Your task to perform on an android device: change the upload size in google photos Image 0: 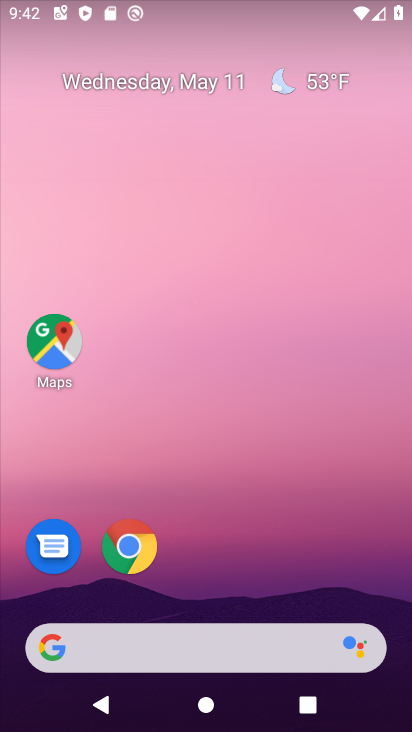
Step 0: drag from (382, 608) to (249, 49)
Your task to perform on an android device: change the upload size in google photos Image 1: 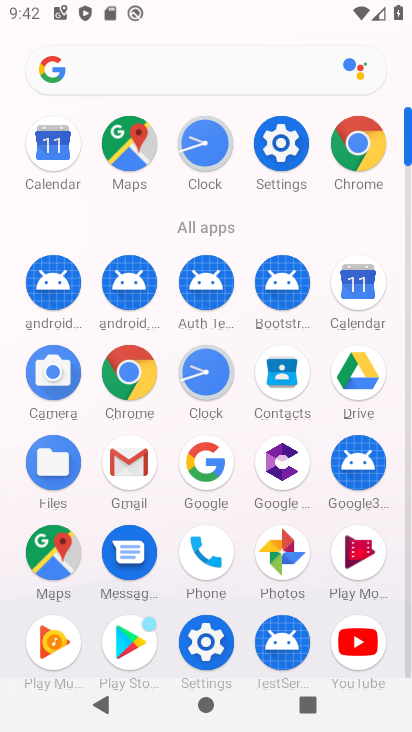
Step 1: click (285, 555)
Your task to perform on an android device: change the upload size in google photos Image 2: 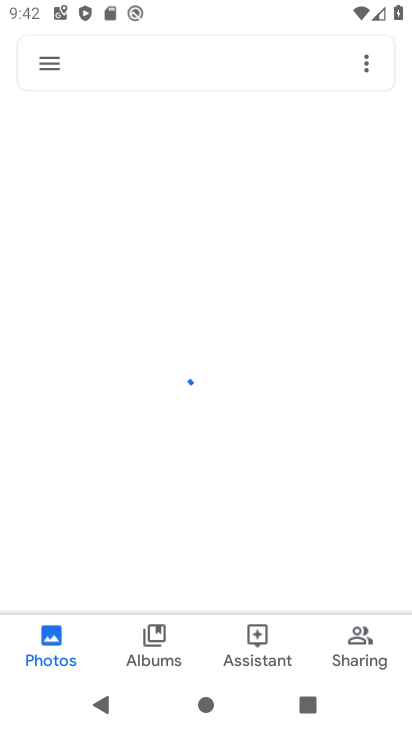
Step 2: click (47, 68)
Your task to perform on an android device: change the upload size in google photos Image 3: 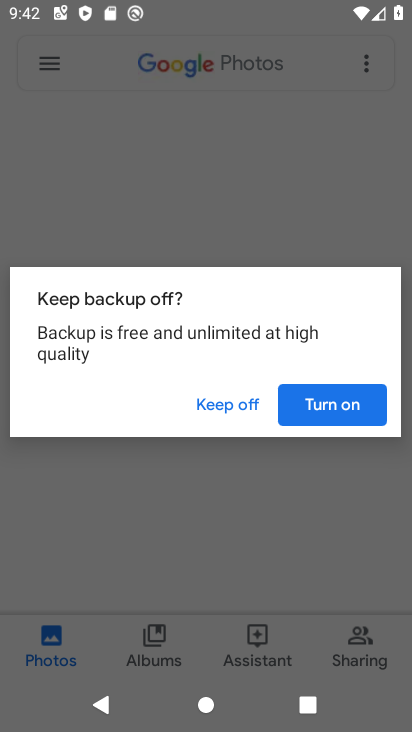
Step 3: click (328, 406)
Your task to perform on an android device: change the upload size in google photos Image 4: 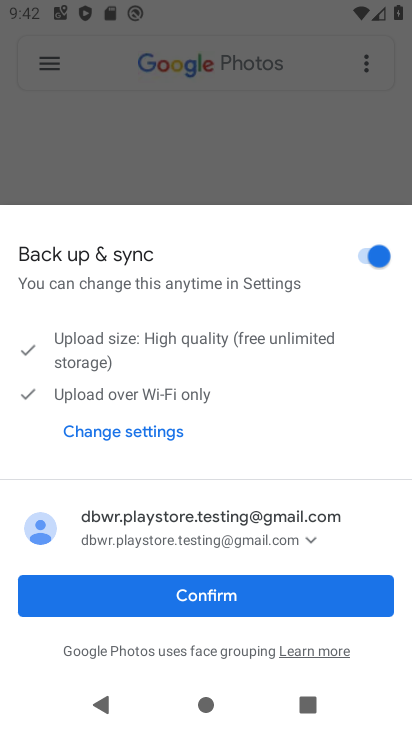
Step 4: click (200, 578)
Your task to perform on an android device: change the upload size in google photos Image 5: 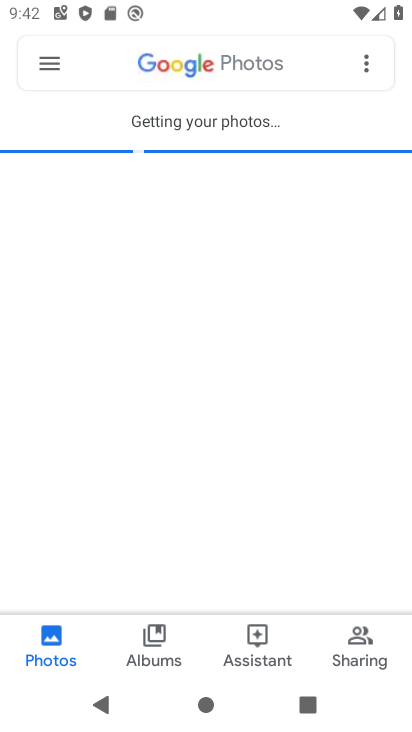
Step 5: click (49, 63)
Your task to perform on an android device: change the upload size in google photos Image 6: 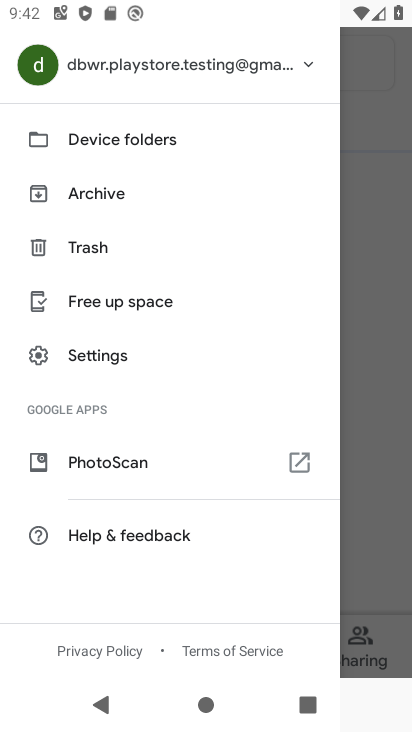
Step 6: click (119, 358)
Your task to perform on an android device: change the upload size in google photos Image 7: 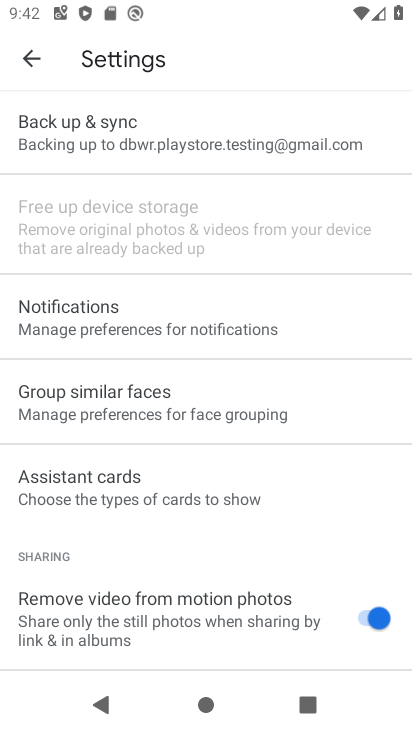
Step 7: click (176, 137)
Your task to perform on an android device: change the upload size in google photos Image 8: 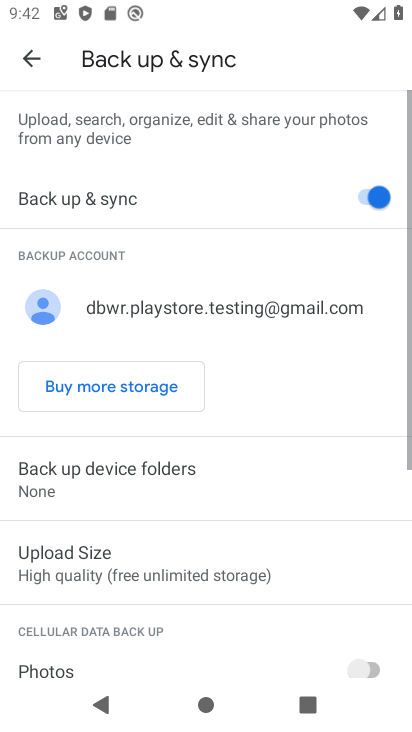
Step 8: click (169, 575)
Your task to perform on an android device: change the upload size in google photos Image 9: 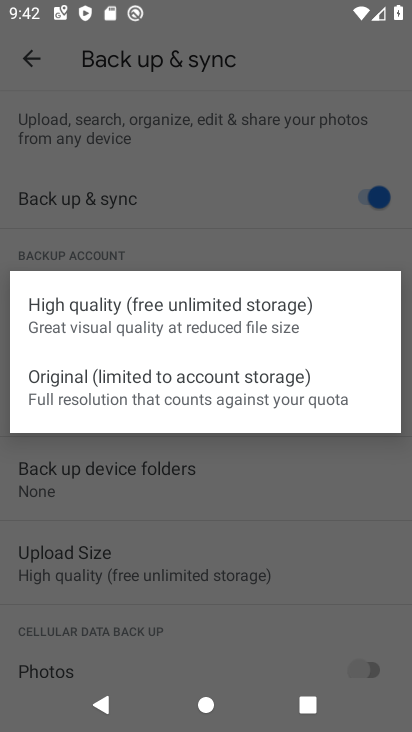
Step 9: click (139, 424)
Your task to perform on an android device: change the upload size in google photos Image 10: 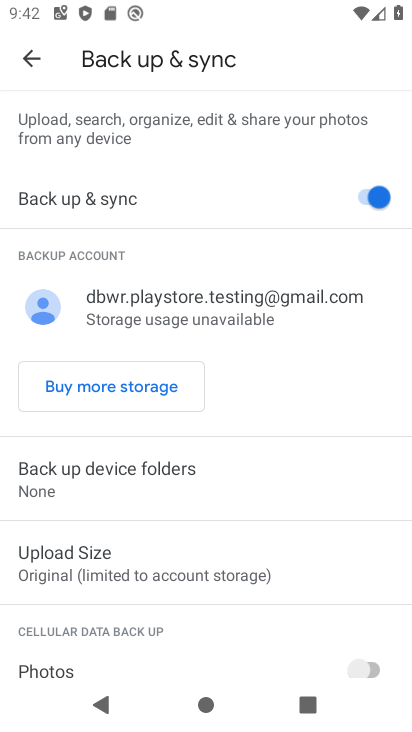
Step 10: task complete